Your task to perform on an android device: allow cookies in the chrome app Image 0: 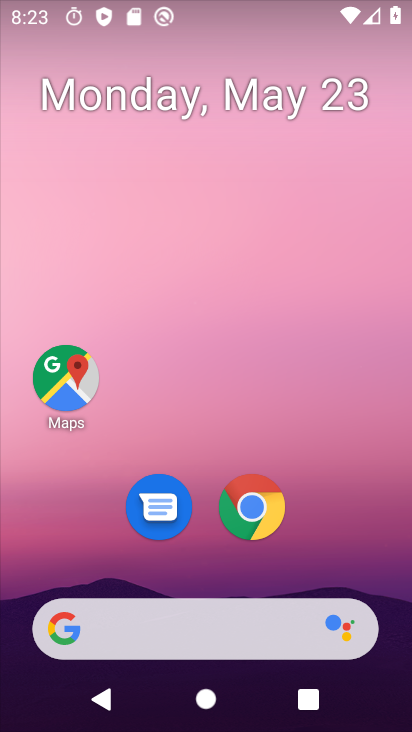
Step 0: drag from (336, 481) to (264, 2)
Your task to perform on an android device: allow cookies in the chrome app Image 1: 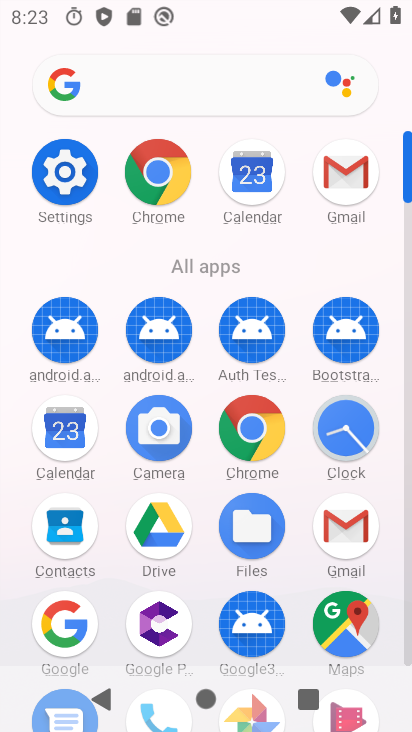
Step 1: click (151, 180)
Your task to perform on an android device: allow cookies in the chrome app Image 2: 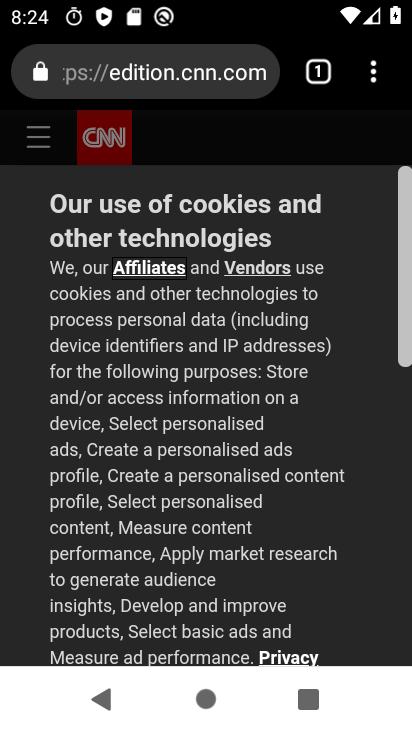
Step 2: drag from (374, 77) to (177, 543)
Your task to perform on an android device: allow cookies in the chrome app Image 3: 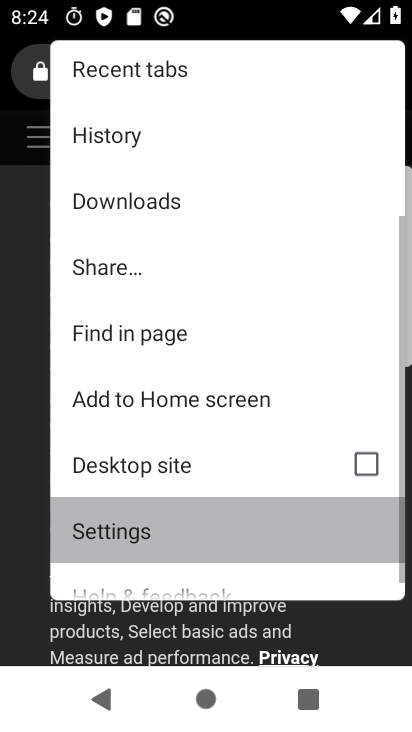
Step 3: drag from (178, 543) to (212, 298)
Your task to perform on an android device: allow cookies in the chrome app Image 4: 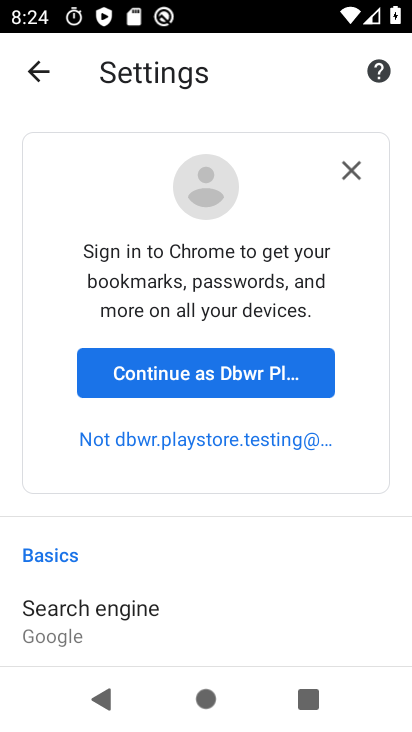
Step 4: drag from (191, 602) to (147, 116)
Your task to perform on an android device: allow cookies in the chrome app Image 5: 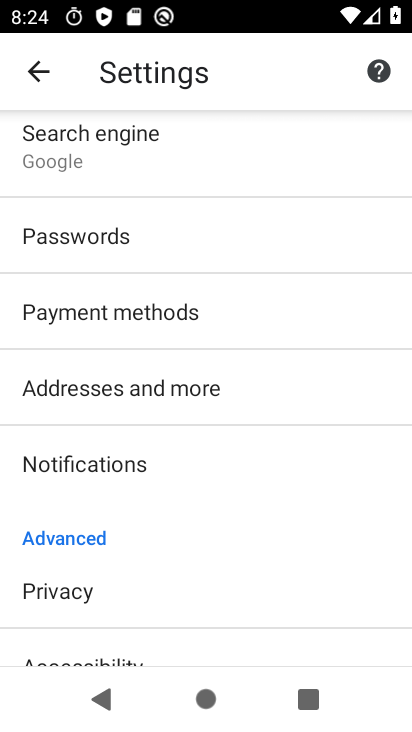
Step 5: drag from (166, 542) to (126, 81)
Your task to perform on an android device: allow cookies in the chrome app Image 6: 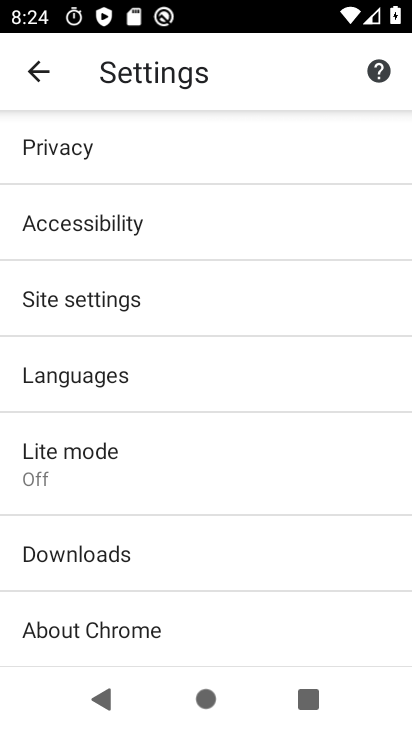
Step 6: click (94, 297)
Your task to perform on an android device: allow cookies in the chrome app Image 7: 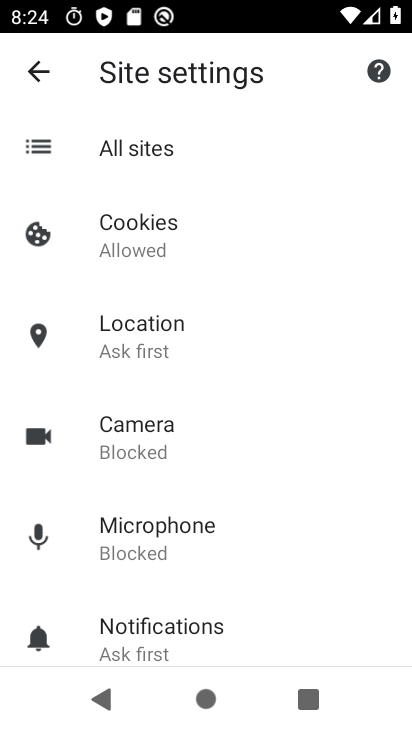
Step 7: click (132, 244)
Your task to perform on an android device: allow cookies in the chrome app Image 8: 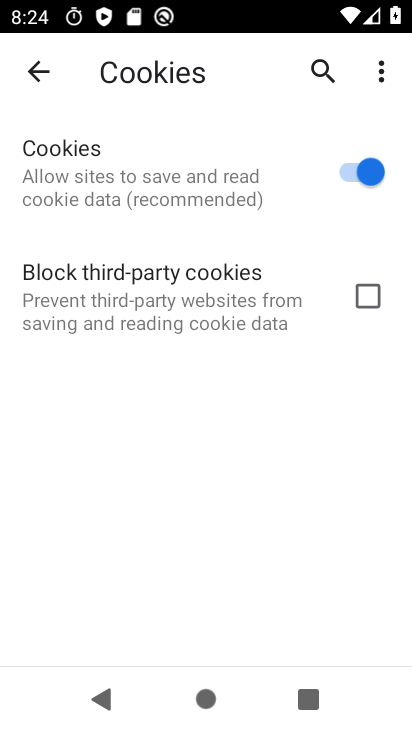
Step 8: task complete